Your task to perform on an android device: Go to Reddit.com Image 0: 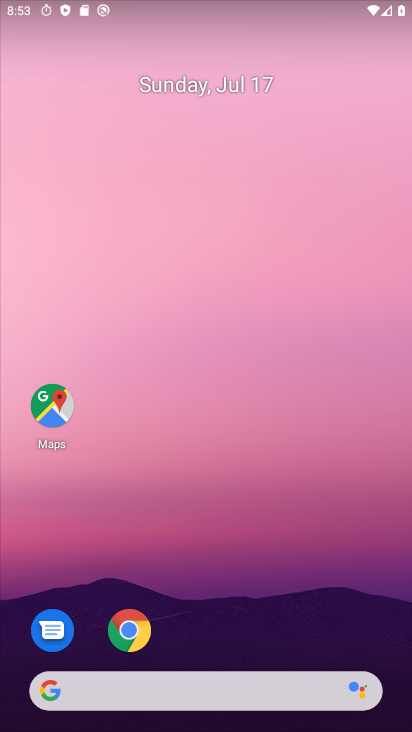
Step 0: click (112, 689)
Your task to perform on an android device: Go to Reddit.com Image 1: 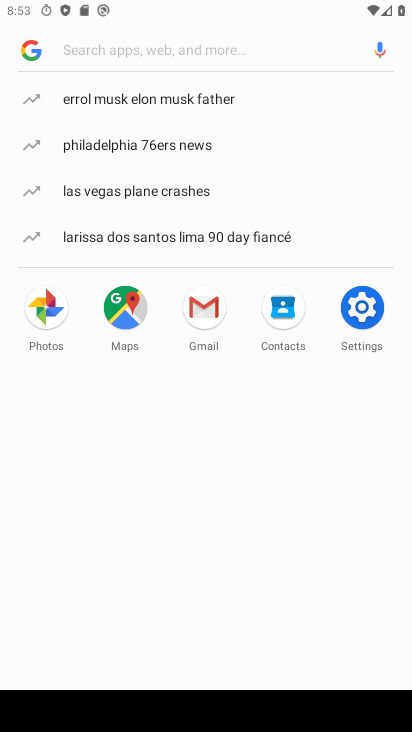
Step 1: type " Reddit.com"
Your task to perform on an android device: Go to Reddit.com Image 2: 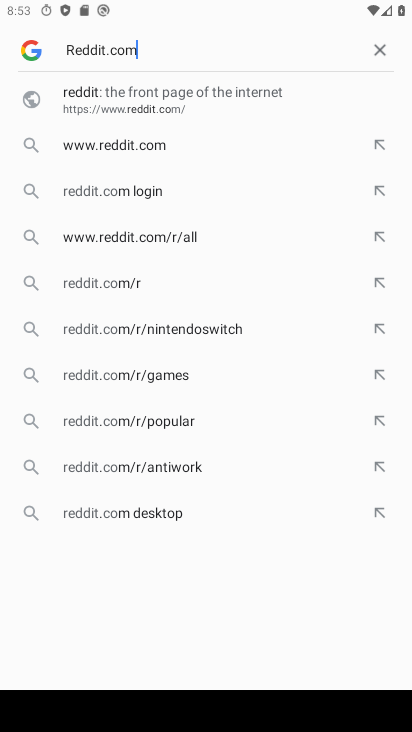
Step 2: type ""
Your task to perform on an android device: Go to Reddit.com Image 3: 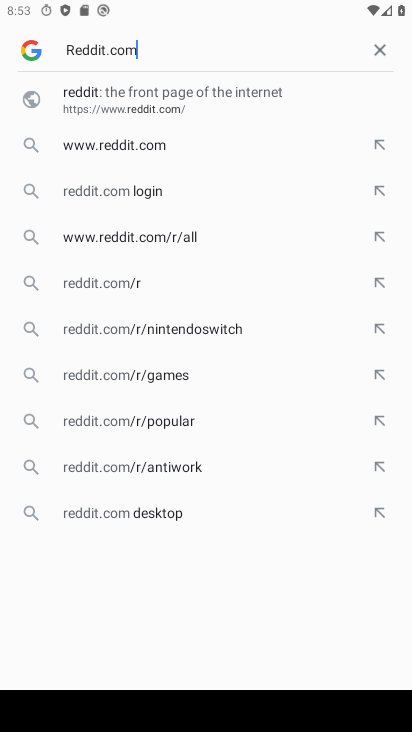
Step 3: type ""
Your task to perform on an android device: Go to Reddit.com Image 4: 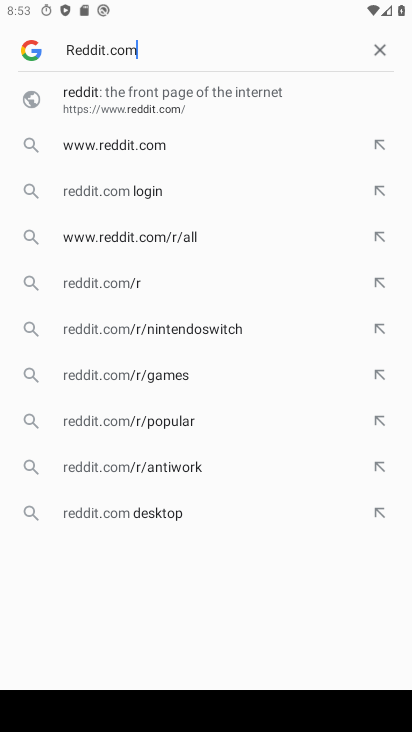
Step 4: type ""
Your task to perform on an android device: Go to Reddit.com Image 5: 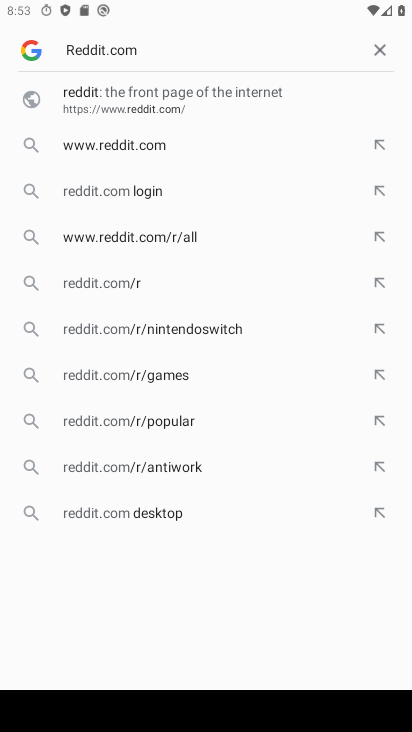
Step 5: type ""
Your task to perform on an android device: Go to Reddit.com Image 6: 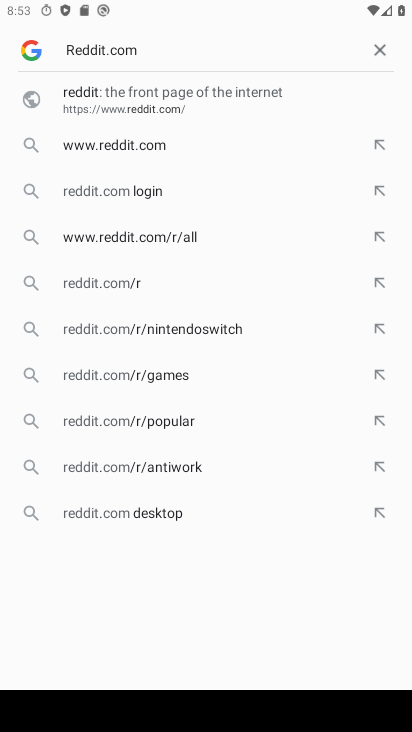
Step 6: task complete